Your task to perform on an android device: What's the latest news in tech? Image 0: 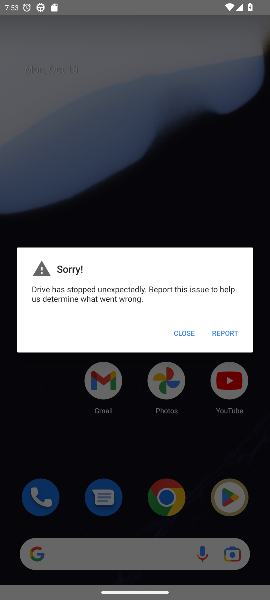
Step 0: click (191, 334)
Your task to perform on an android device: What's the latest news in tech? Image 1: 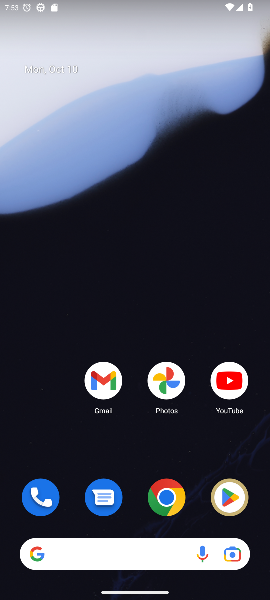
Step 1: drag from (129, 466) to (145, 162)
Your task to perform on an android device: What's the latest news in tech? Image 2: 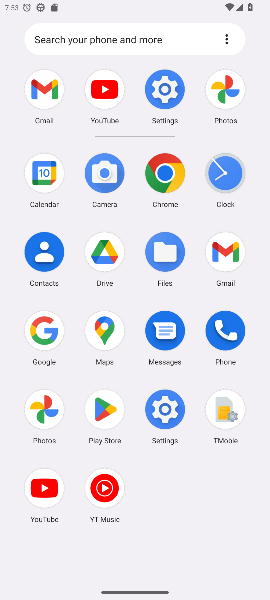
Step 2: click (40, 324)
Your task to perform on an android device: What's the latest news in tech? Image 3: 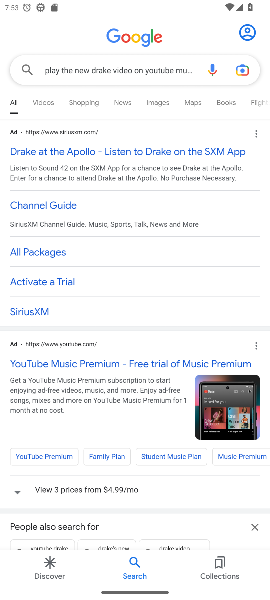
Step 3: click (74, 74)
Your task to perform on an android device: What's the latest news in tech? Image 4: 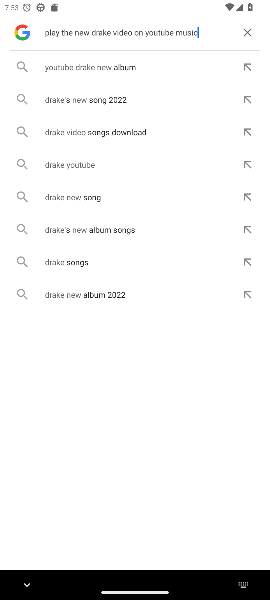
Step 4: click (249, 26)
Your task to perform on an android device: What's the latest news in tech? Image 5: 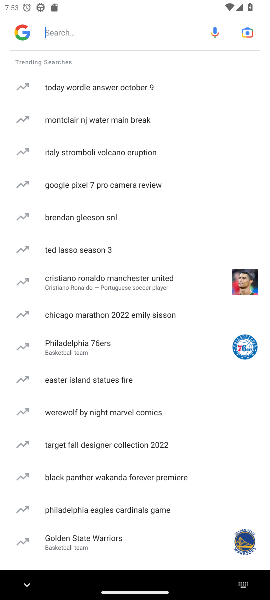
Step 5: drag from (32, 598) to (201, 587)
Your task to perform on an android device: What's the latest news in tech? Image 6: 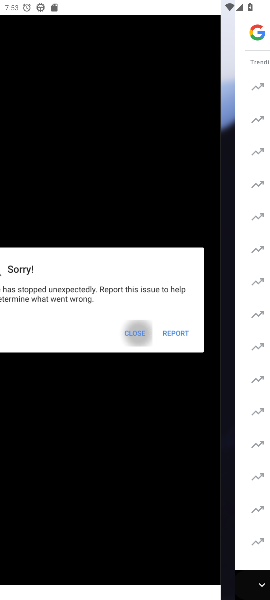
Step 6: click (143, 33)
Your task to perform on an android device: What's the latest news in tech? Image 7: 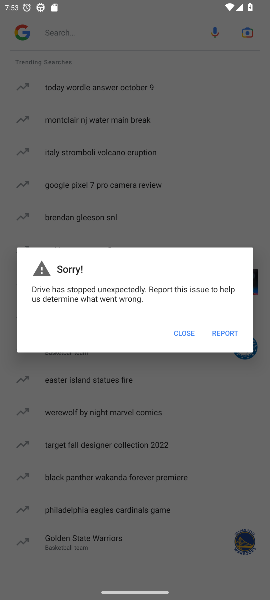
Step 7: press back button
Your task to perform on an android device: What's the latest news in tech? Image 8: 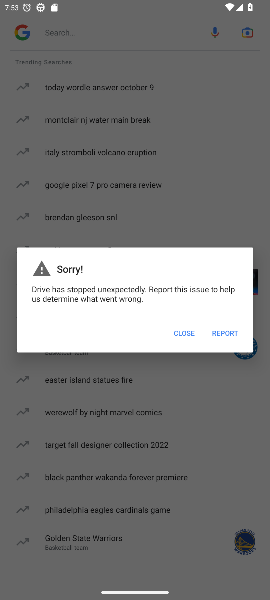
Step 8: press back button
Your task to perform on an android device: What's the latest news in tech? Image 9: 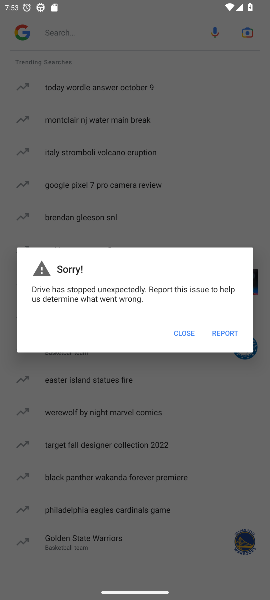
Step 9: click (186, 332)
Your task to perform on an android device: What's the latest news in tech? Image 10: 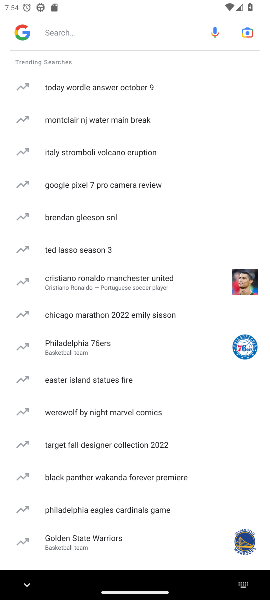
Step 10: click (118, 24)
Your task to perform on an android device: What's the latest news in tech? Image 11: 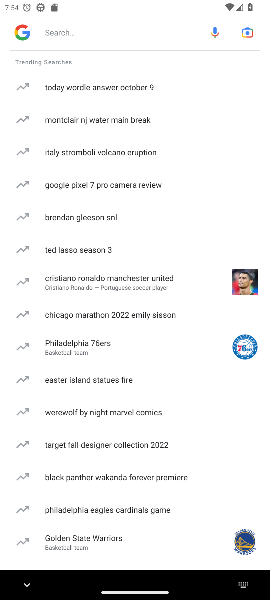
Step 11: type "What's the latest news in tech? "
Your task to perform on an android device: What's the latest news in tech? Image 12: 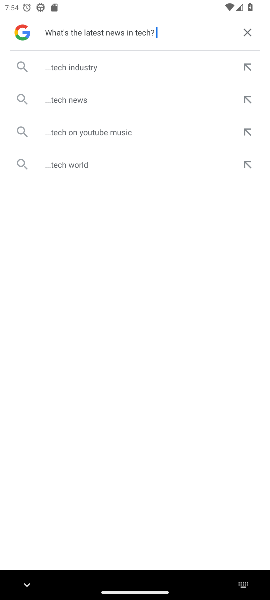
Step 12: click (105, 63)
Your task to perform on an android device: What's the latest news in tech? Image 13: 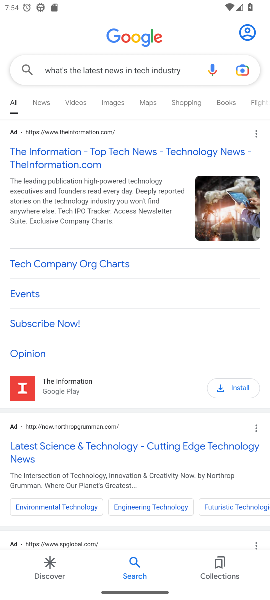
Step 13: click (58, 160)
Your task to perform on an android device: What's the latest news in tech? Image 14: 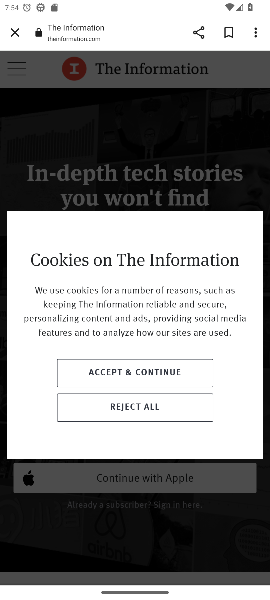
Step 14: click (169, 369)
Your task to perform on an android device: What's the latest news in tech? Image 15: 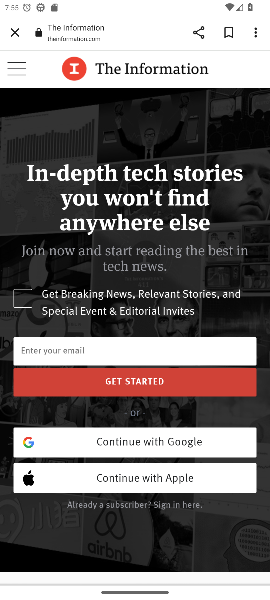
Step 15: task complete